Your task to perform on an android device: Open calendar and show me the first week of next month Image 0: 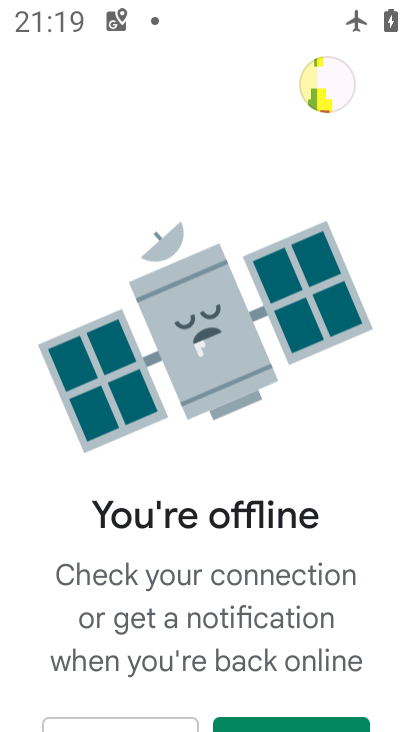
Step 0: press back button
Your task to perform on an android device: Open calendar and show me the first week of next month Image 1: 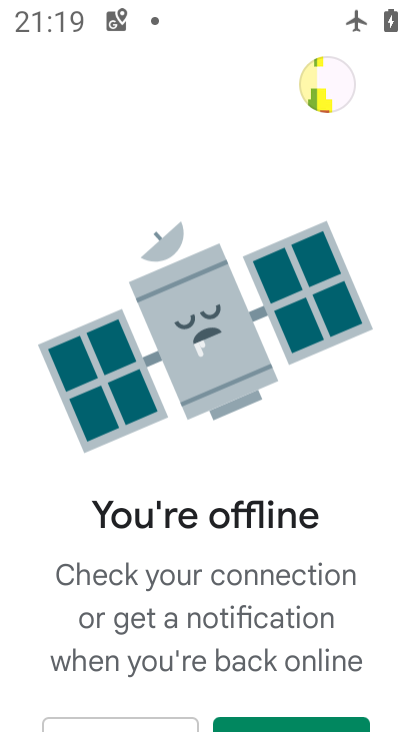
Step 1: press back button
Your task to perform on an android device: Open calendar and show me the first week of next month Image 2: 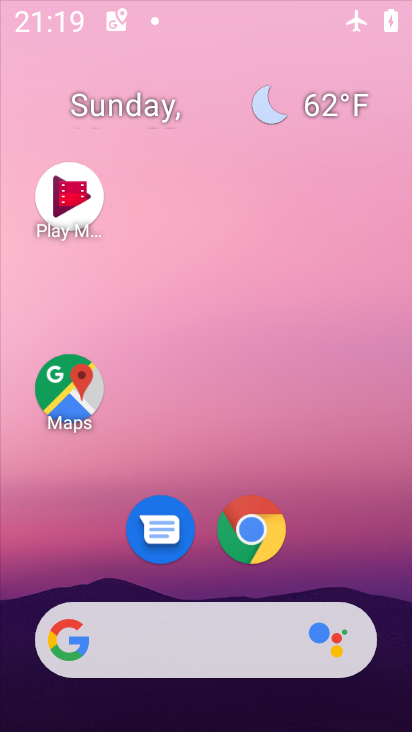
Step 2: press back button
Your task to perform on an android device: Open calendar and show me the first week of next month Image 3: 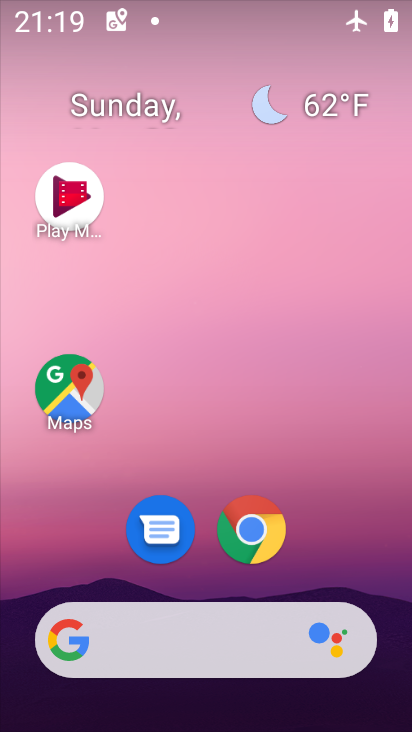
Step 3: drag from (259, 676) to (158, 209)
Your task to perform on an android device: Open calendar and show me the first week of next month Image 4: 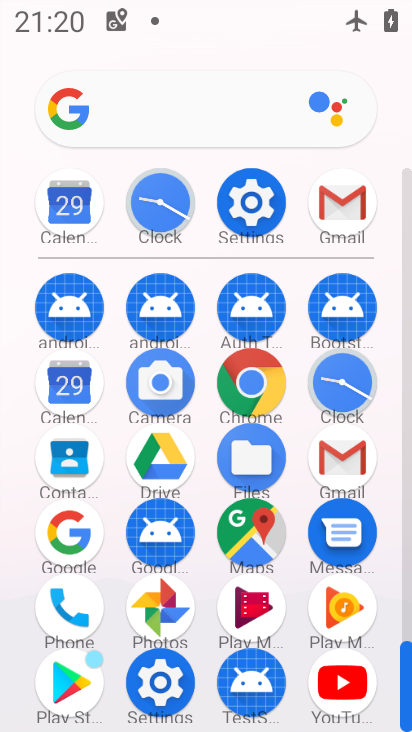
Step 4: click (65, 385)
Your task to perform on an android device: Open calendar and show me the first week of next month Image 5: 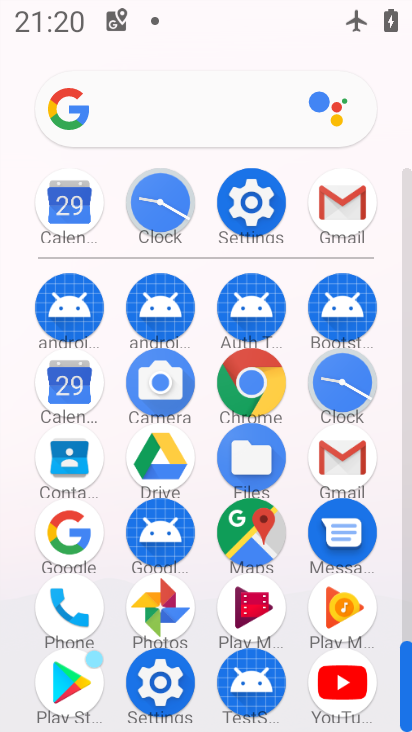
Step 5: click (68, 383)
Your task to perform on an android device: Open calendar and show me the first week of next month Image 6: 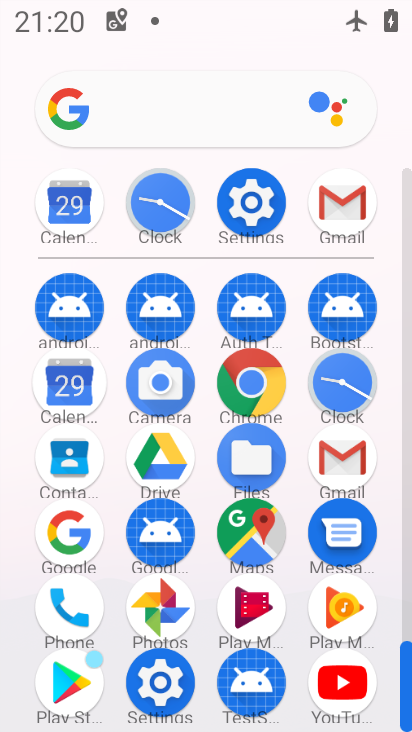
Step 6: click (69, 383)
Your task to perform on an android device: Open calendar and show me the first week of next month Image 7: 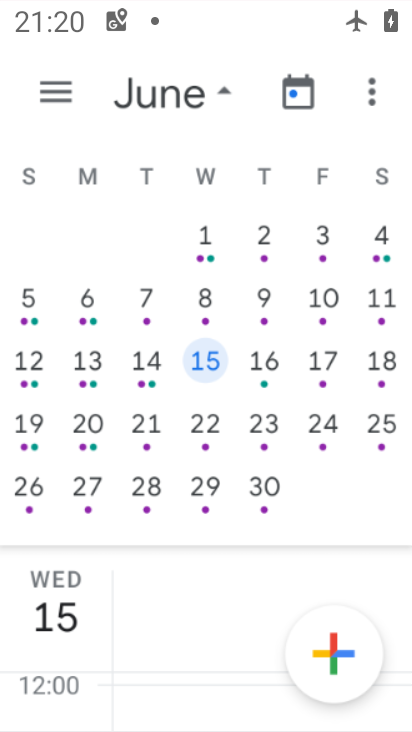
Step 7: click (70, 387)
Your task to perform on an android device: Open calendar and show me the first week of next month Image 8: 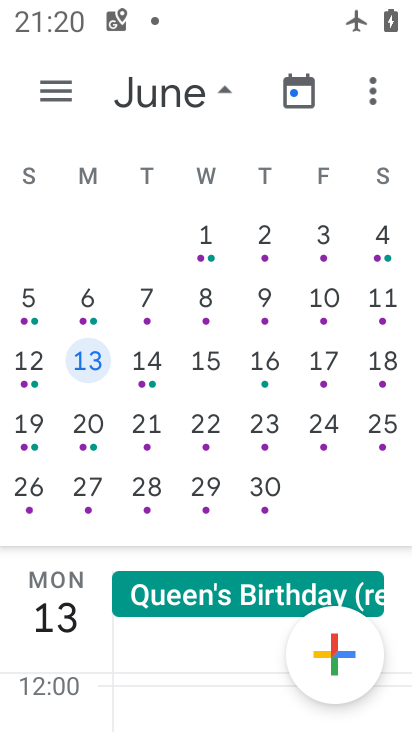
Step 8: click (257, 238)
Your task to perform on an android device: Open calendar and show me the first week of next month Image 9: 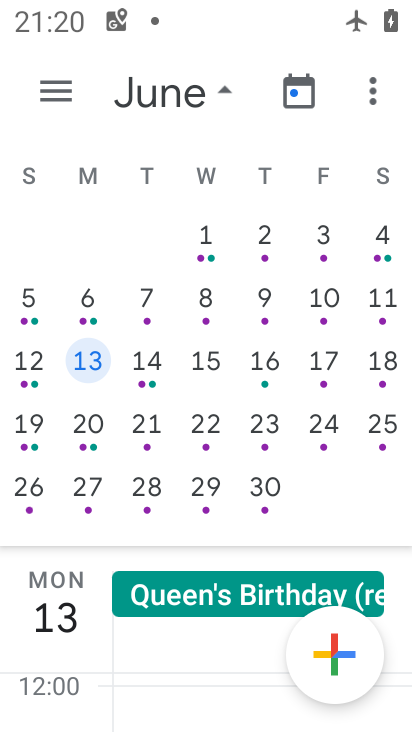
Step 9: click (260, 237)
Your task to perform on an android device: Open calendar and show me the first week of next month Image 10: 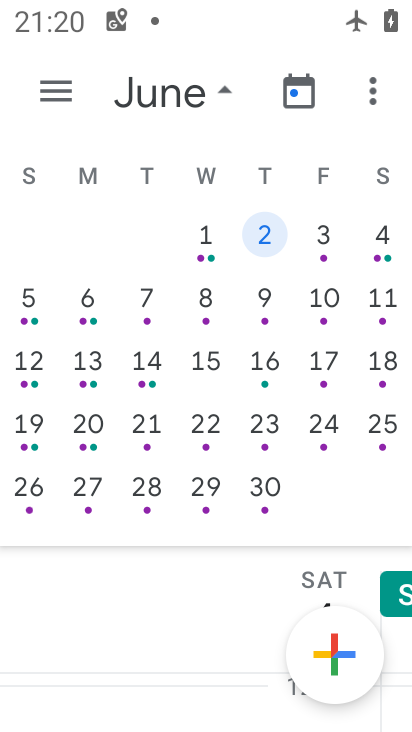
Step 10: click (266, 237)
Your task to perform on an android device: Open calendar and show me the first week of next month Image 11: 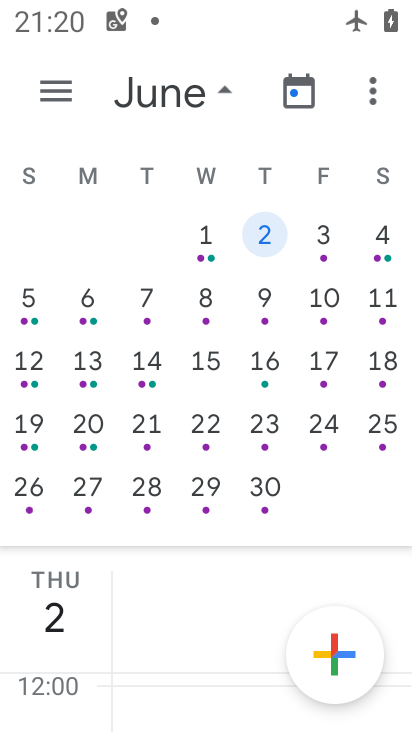
Step 11: click (269, 235)
Your task to perform on an android device: Open calendar and show me the first week of next month Image 12: 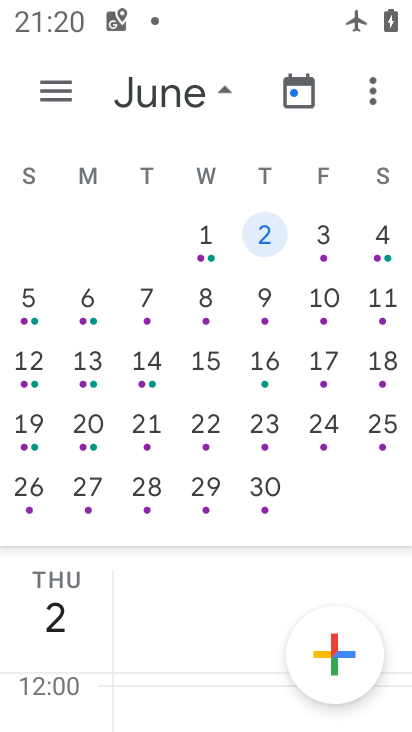
Step 12: task complete